Your task to perform on an android device: change keyboard looks Image 0: 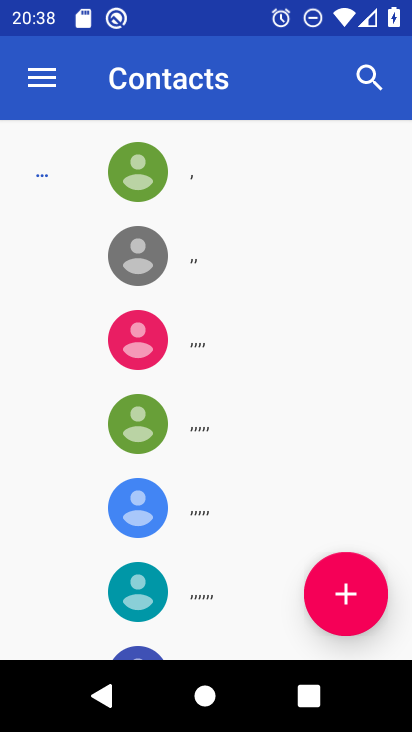
Step 0: press home button
Your task to perform on an android device: change keyboard looks Image 1: 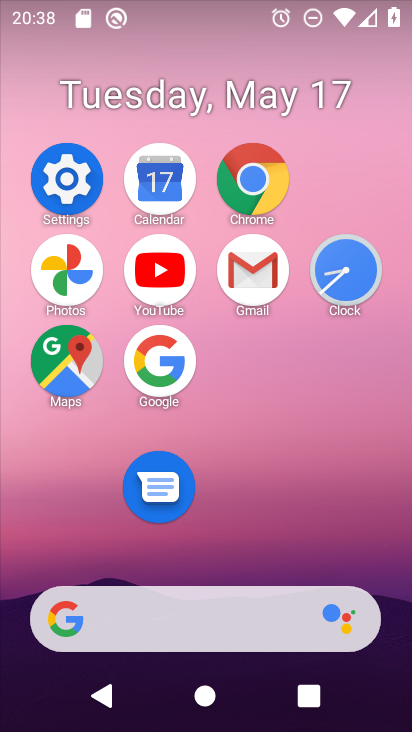
Step 1: click (61, 163)
Your task to perform on an android device: change keyboard looks Image 2: 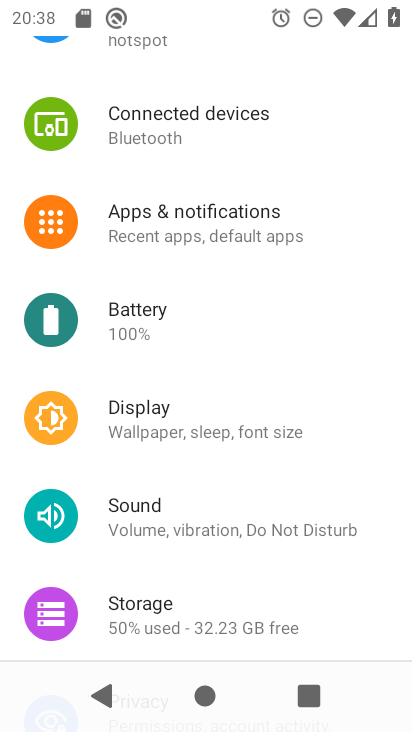
Step 2: drag from (249, 537) to (268, 232)
Your task to perform on an android device: change keyboard looks Image 3: 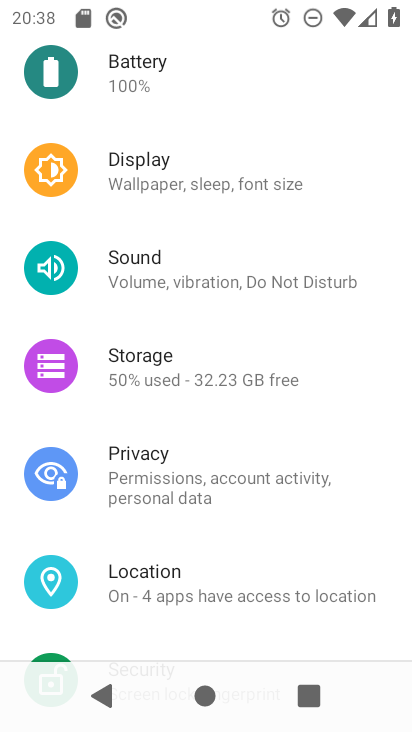
Step 3: drag from (241, 505) to (260, 176)
Your task to perform on an android device: change keyboard looks Image 4: 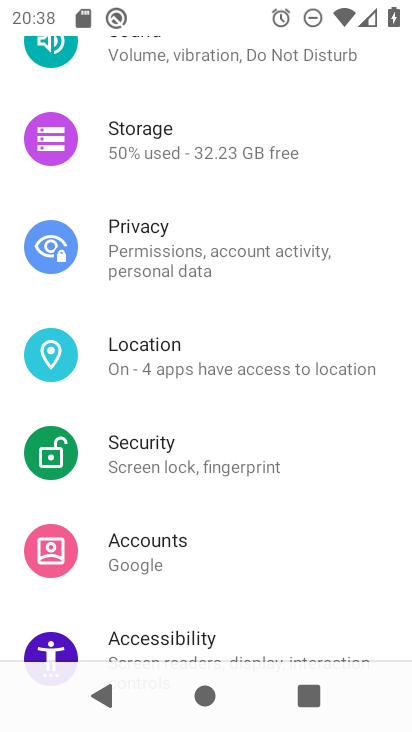
Step 4: drag from (224, 532) to (241, 279)
Your task to perform on an android device: change keyboard looks Image 5: 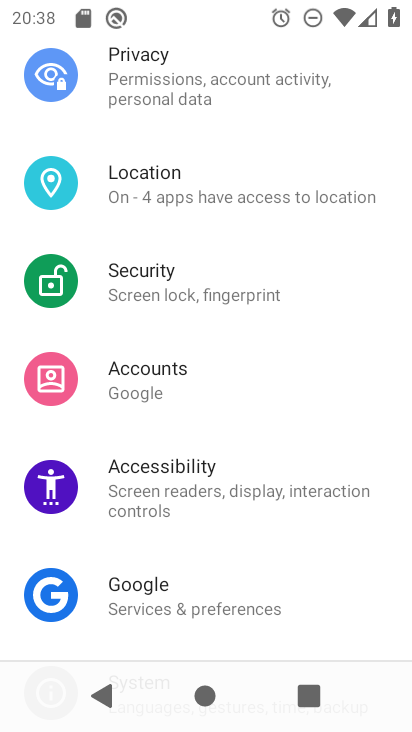
Step 5: drag from (272, 152) to (258, 554)
Your task to perform on an android device: change keyboard looks Image 6: 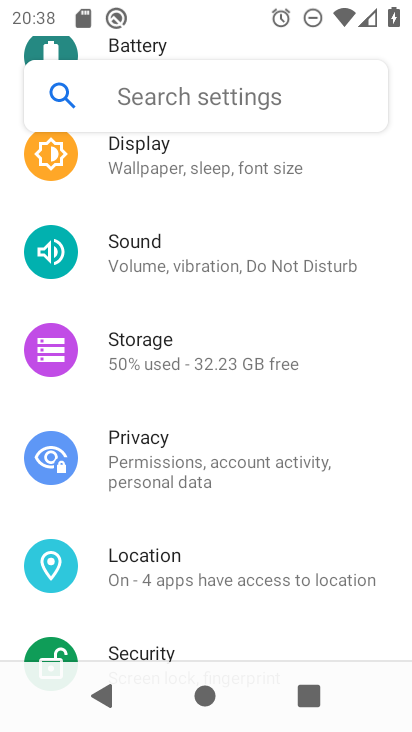
Step 6: drag from (275, 217) to (308, 49)
Your task to perform on an android device: change keyboard looks Image 7: 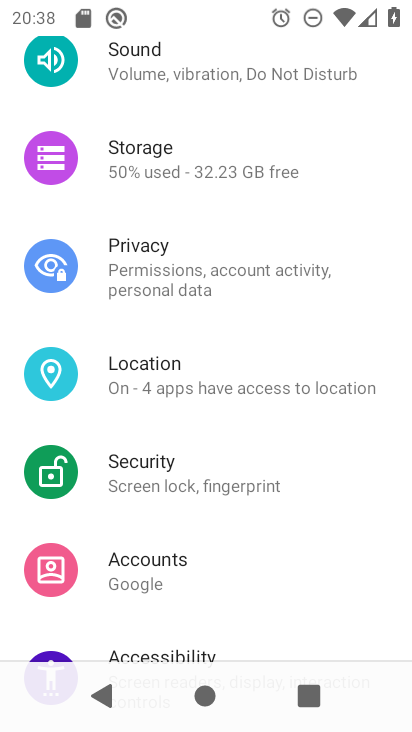
Step 7: drag from (284, 424) to (247, 72)
Your task to perform on an android device: change keyboard looks Image 8: 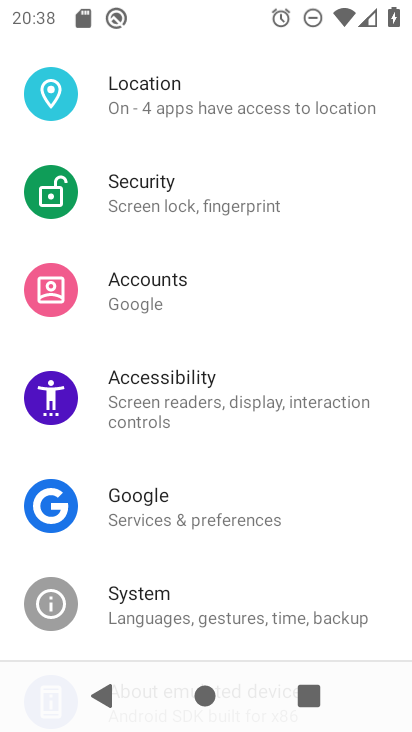
Step 8: click (303, 561)
Your task to perform on an android device: change keyboard looks Image 9: 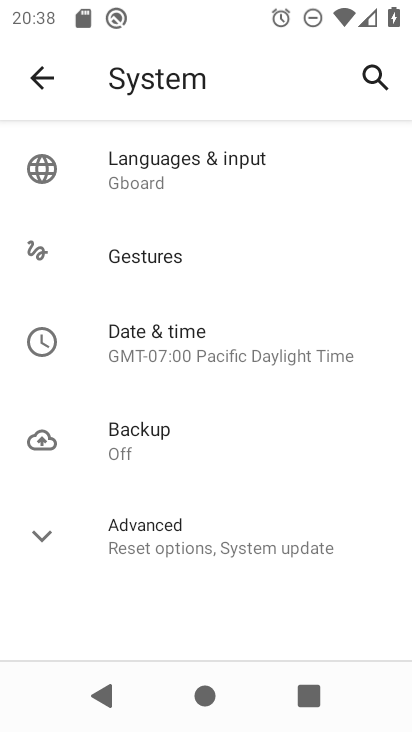
Step 9: click (197, 139)
Your task to perform on an android device: change keyboard looks Image 10: 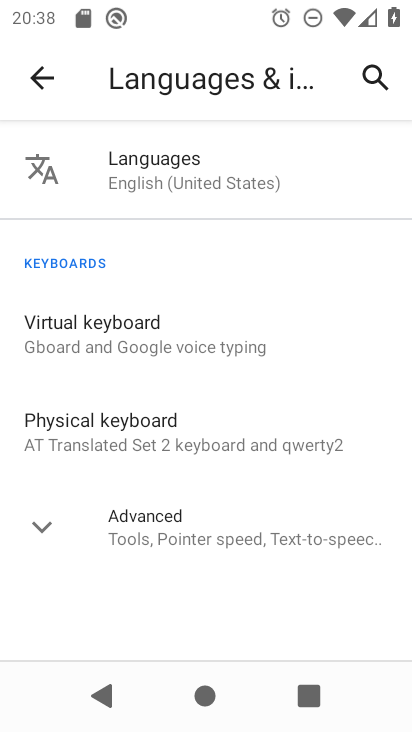
Step 10: click (203, 348)
Your task to perform on an android device: change keyboard looks Image 11: 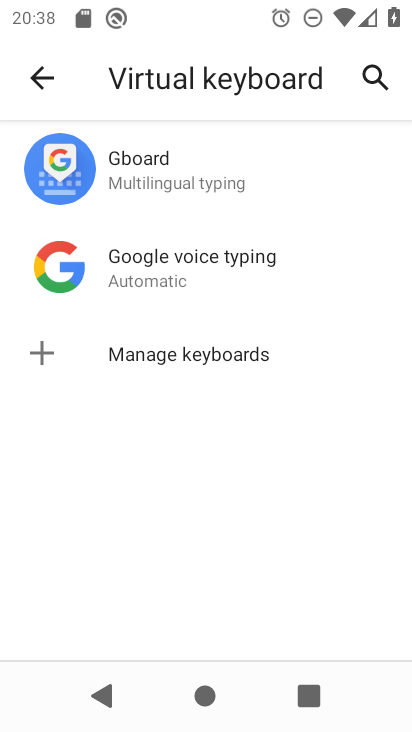
Step 11: click (197, 157)
Your task to perform on an android device: change keyboard looks Image 12: 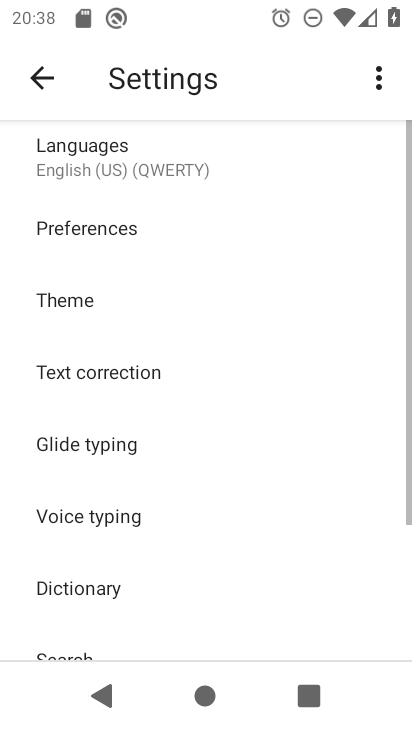
Step 12: click (113, 303)
Your task to perform on an android device: change keyboard looks Image 13: 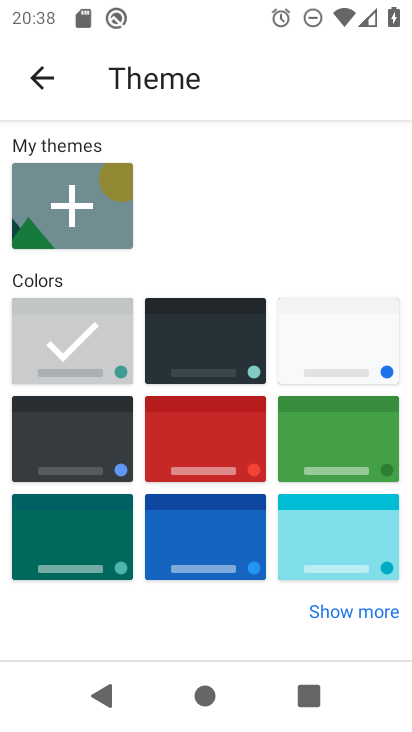
Step 13: click (243, 375)
Your task to perform on an android device: change keyboard looks Image 14: 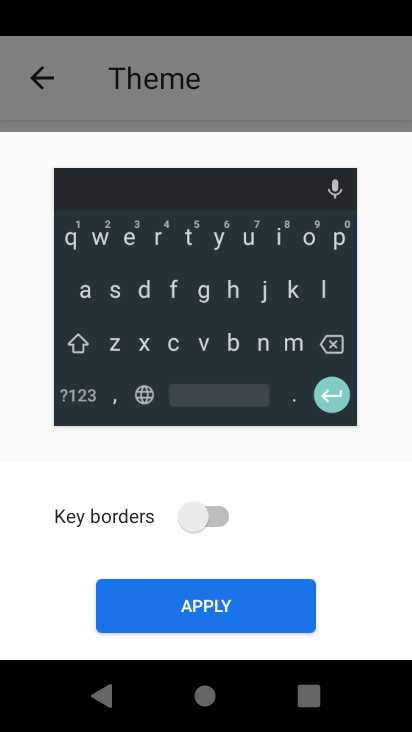
Step 14: click (218, 502)
Your task to perform on an android device: change keyboard looks Image 15: 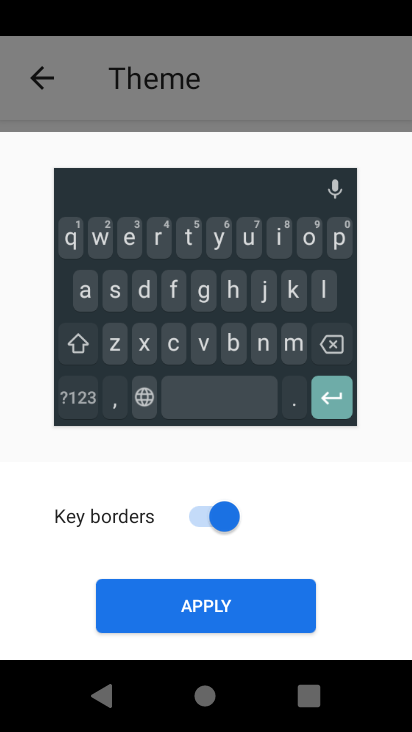
Step 15: click (261, 619)
Your task to perform on an android device: change keyboard looks Image 16: 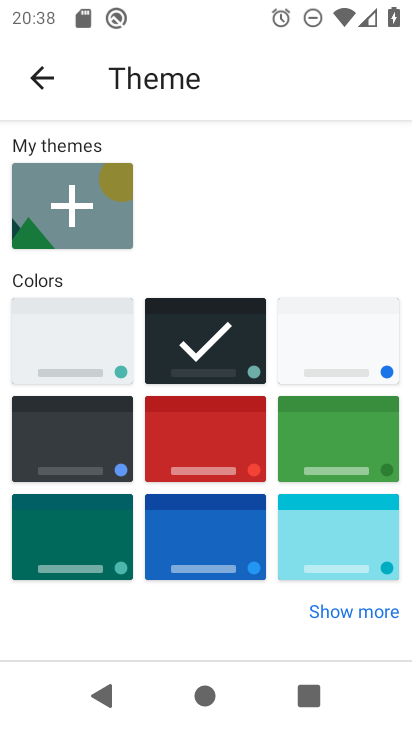
Step 16: task complete